Your task to perform on an android device: Go to location settings Image 0: 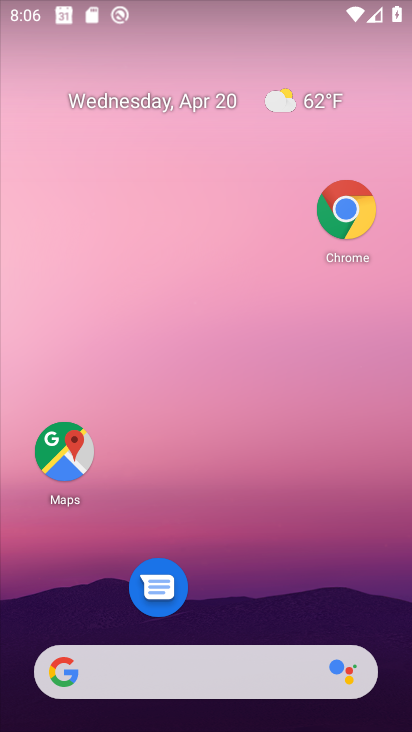
Step 0: drag from (199, 621) to (216, 209)
Your task to perform on an android device: Go to location settings Image 1: 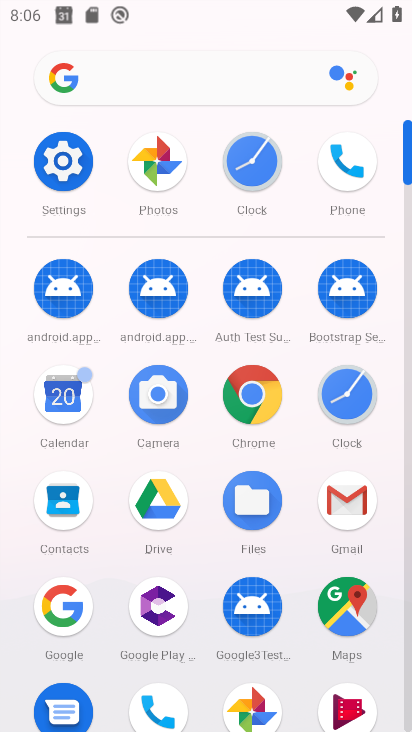
Step 1: click (56, 156)
Your task to perform on an android device: Go to location settings Image 2: 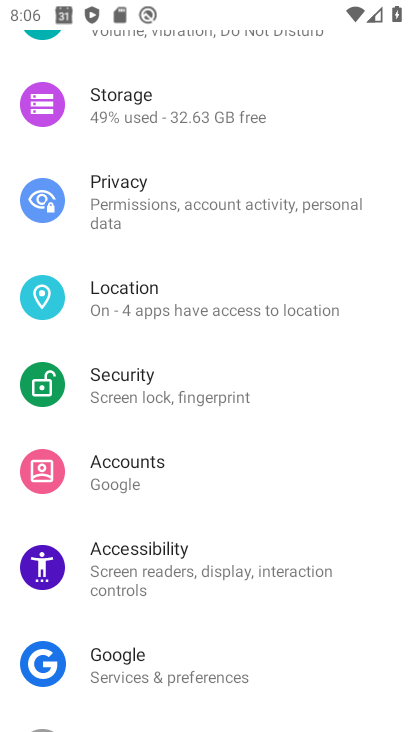
Step 2: click (120, 323)
Your task to perform on an android device: Go to location settings Image 3: 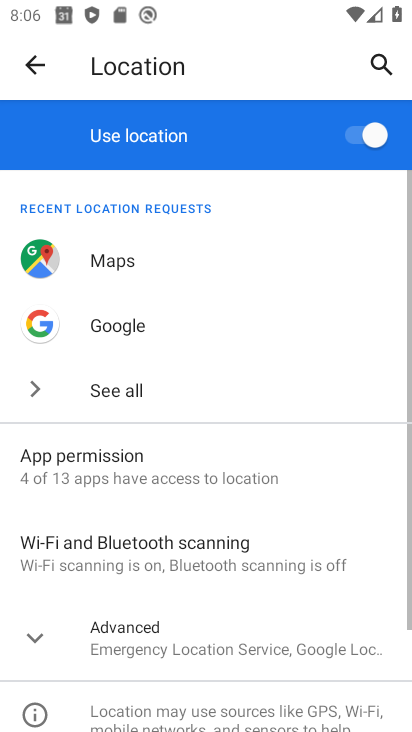
Step 3: task complete